Your task to perform on an android device: see tabs open on other devices in the chrome app Image 0: 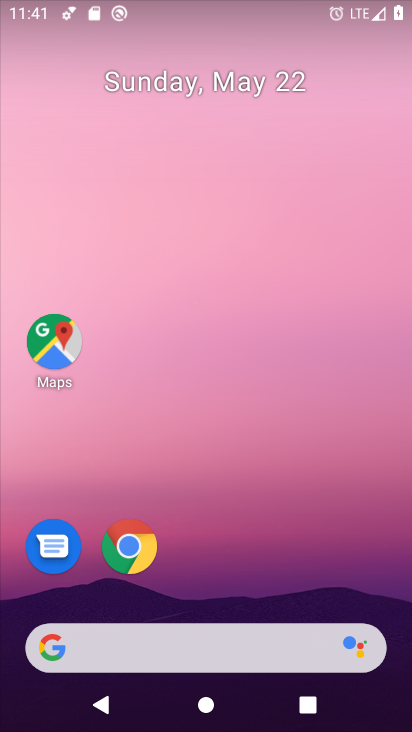
Step 0: drag from (283, 573) to (288, 208)
Your task to perform on an android device: see tabs open on other devices in the chrome app Image 1: 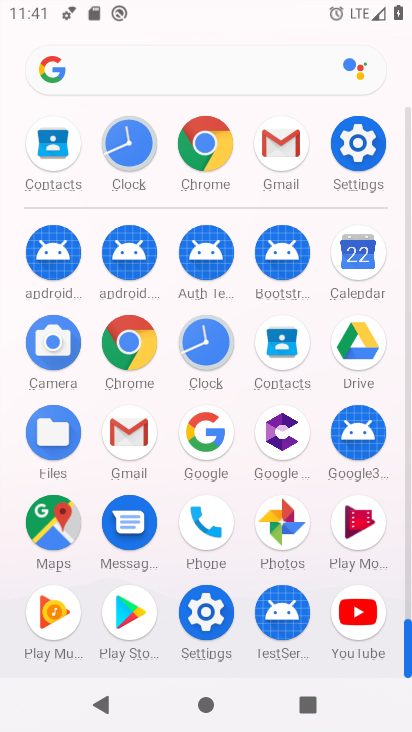
Step 1: click (216, 163)
Your task to perform on an android device: see tabs open on other devices in the chrome app Image 2: 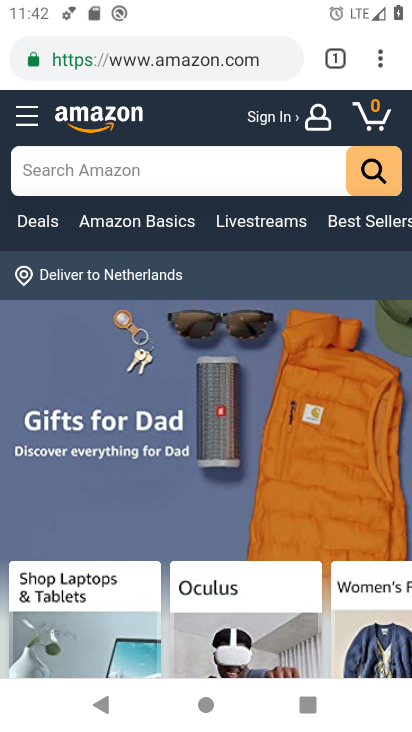
Step 2: task complete